Your task to perform on an android device: Go to location settings Image 0: 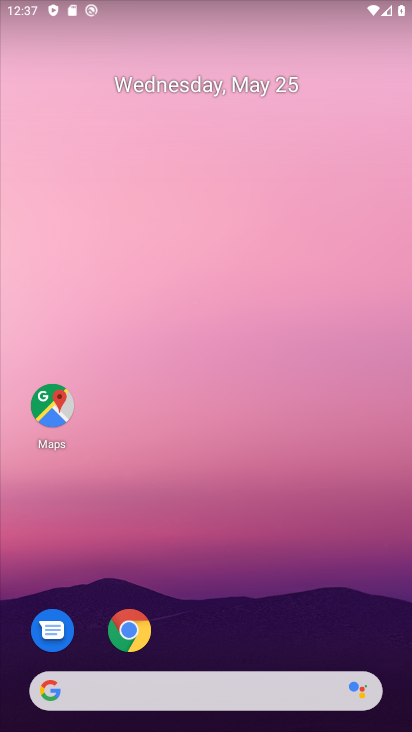
Step 0: drag from (275, 674) to (111, 52)
Your task to perform on an android device: Go to location settings Image 1: 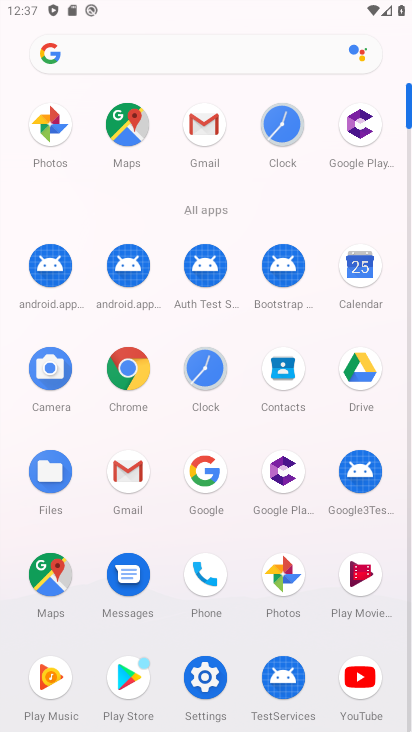
Step 1: click (203, 681)
Your task to perform on an android device: Go to location settings Image 2: 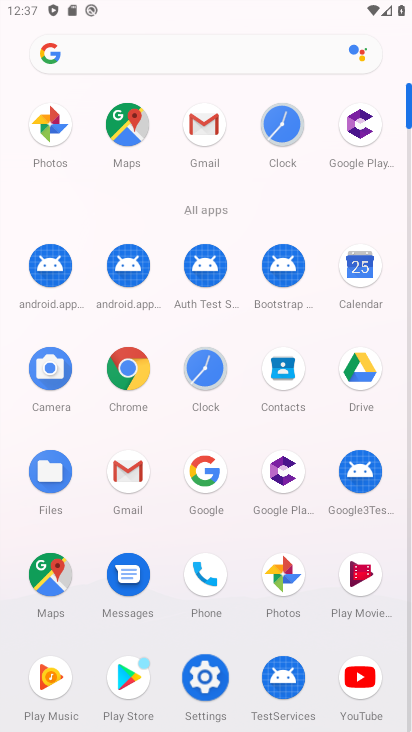
Step 2: click (203, 680)
Your task to perform on an android device: Go to location settings Image 3: 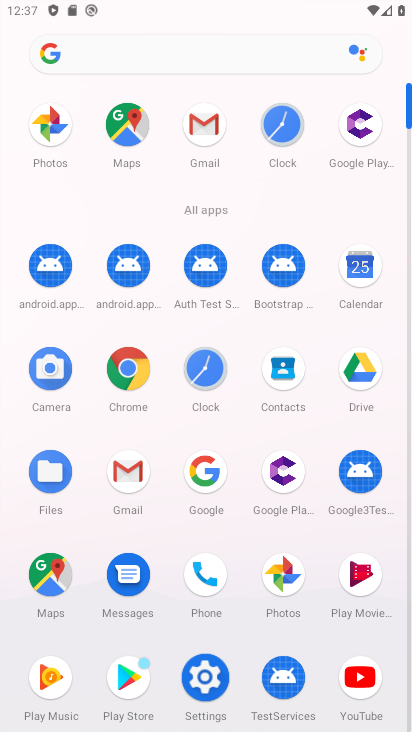
Step 3: click (208, 676)
Your task to perform on an android device: Go to location settings Image 4: 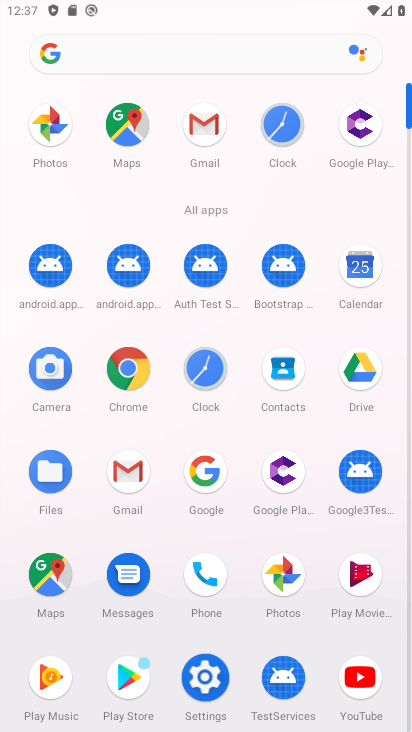
Step 4: click (210, 672)
Your task to perform on an android device: Go to location settings Image 5: 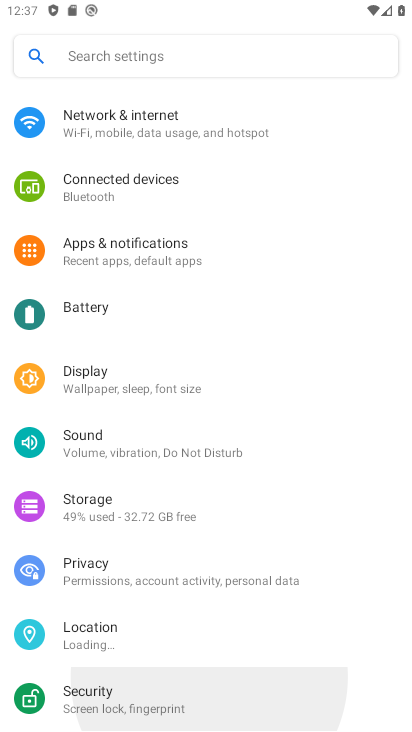
Step 5: click (206, 645)
Your task to perform on an android device: Go to location settings Image 6: 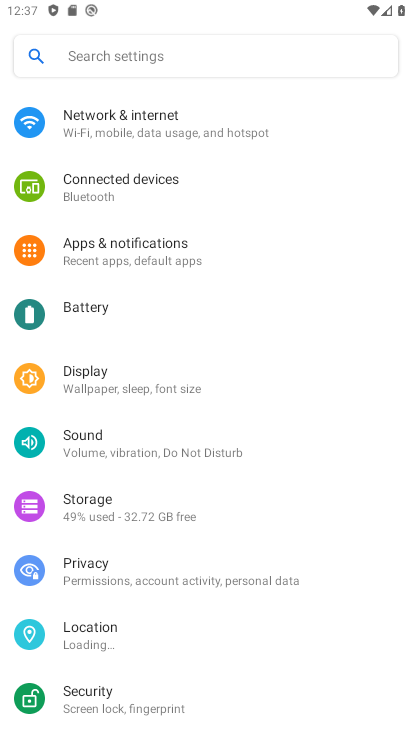
Step 6: click (208, 680)
Your task to perform on an android device: Go to location settings Image 7: 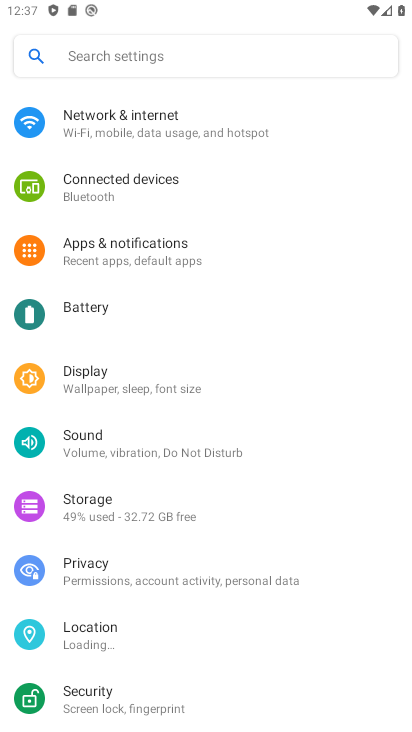
Step 7: click (207, 678)
Your task to perform on an android device: Go to location settings Image 8: 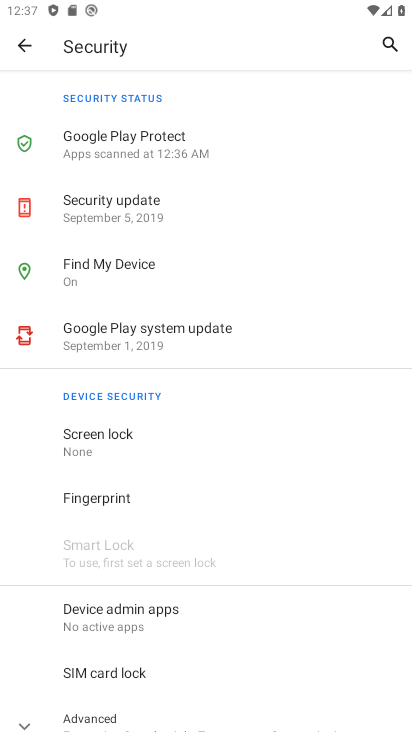
Step 8: click (20, 55)
Your task to perform on an android device: Go to location settings Image 9: 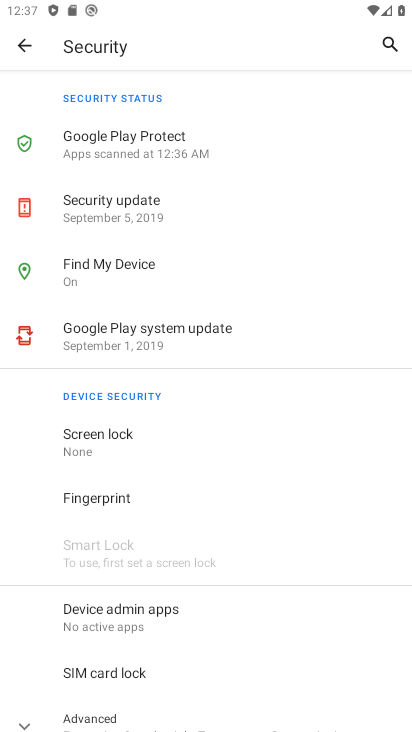
Step 9: click (29, 46)
Your task to perform on an android device: Go to location settings Image 10: 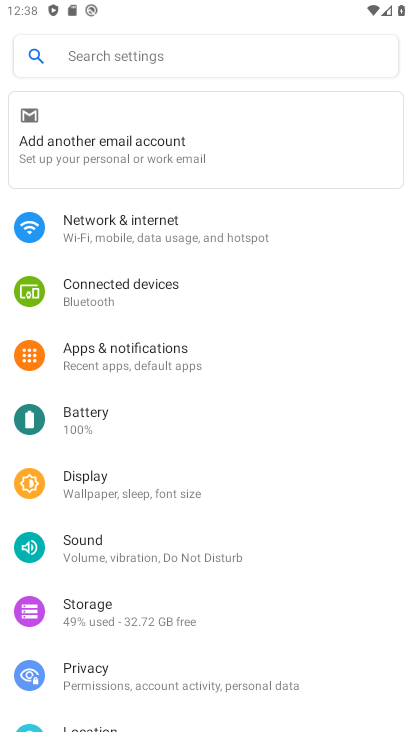
Step 10: drag from (167, 461) to (185, 112)
Your task to perform on an android device: Go to location settings Image 11: 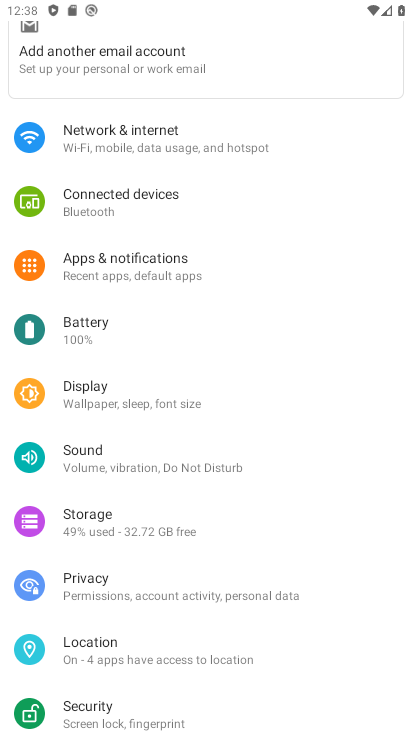
Step 11: drag from (248, 573) to (240, 186)
Your task to perform on an android device: Go to location settings Image 12: 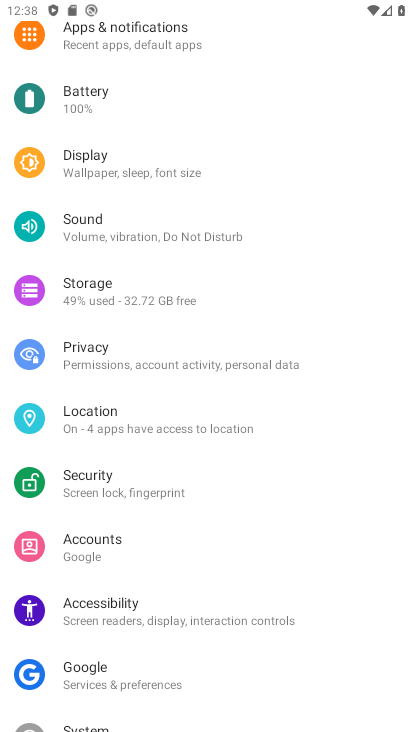
Step 12: drag from (232, 526) to (229, 203)
Your task to perform on an android device: Go to location settings Image 13: 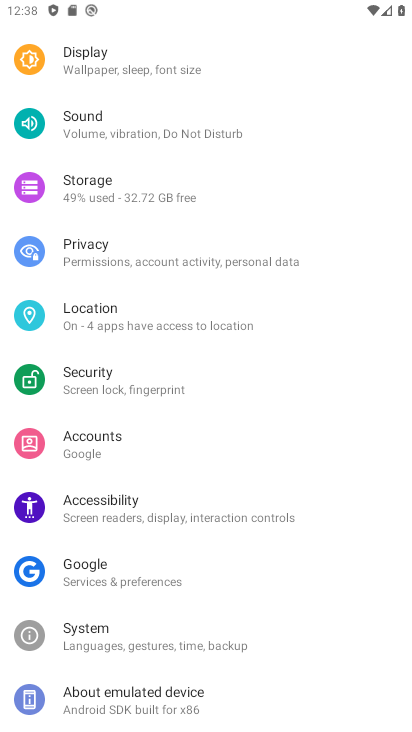
Step 13: click (105, 319)
Your task to perform on an android device: Go to location settings Image 14: 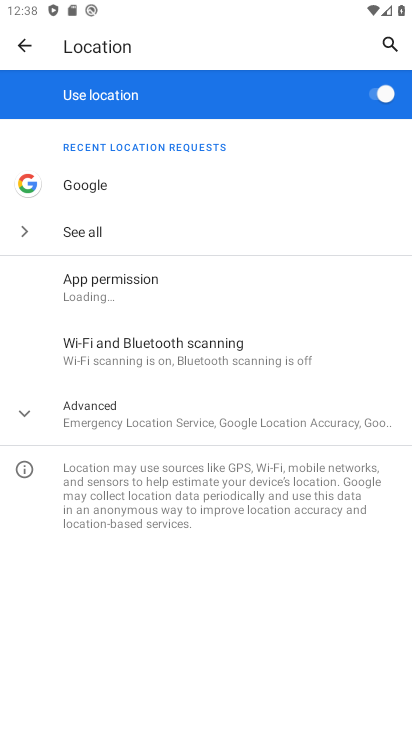
Step 14: task complete